Your task to perform on an android device: Check the weather Image 0: 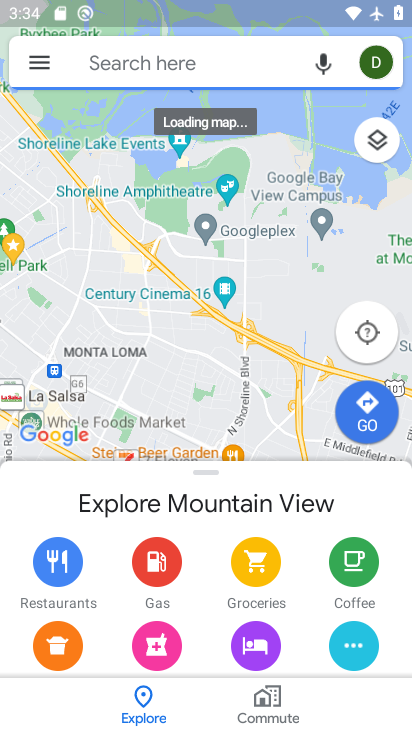
Step 0: press home button
Your task to perform on an android device: Check the weather Image 1: 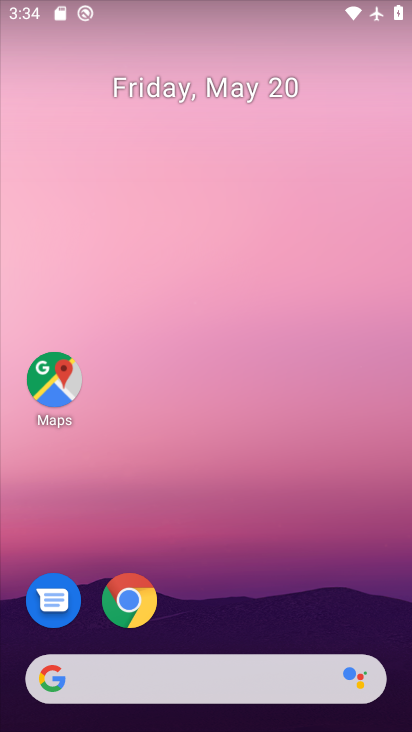
Step 1: drag from (271, 511) to (111, 37)
Your task to perform on an android device: Check the weather Image 2: 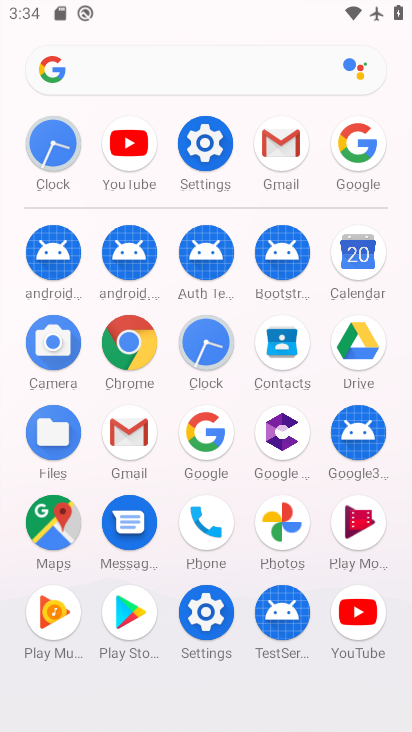
Step 2: click (227, 434)
Your task to perform on an android device: Check the weather Image 3: 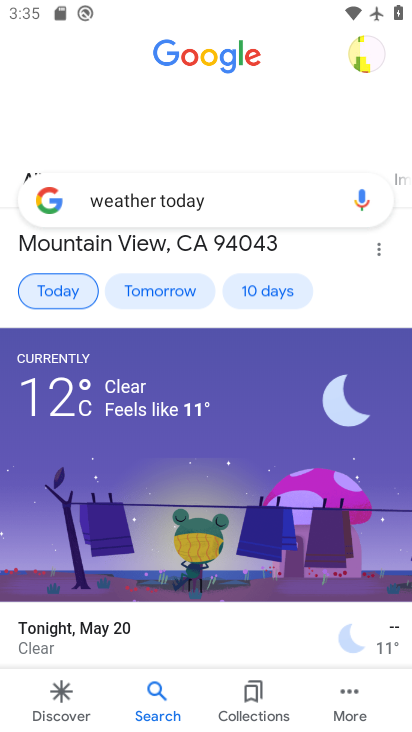
Step 3: task complete